Your task to perform on an android device: Open calendar and show me the second week of next month Image 0: 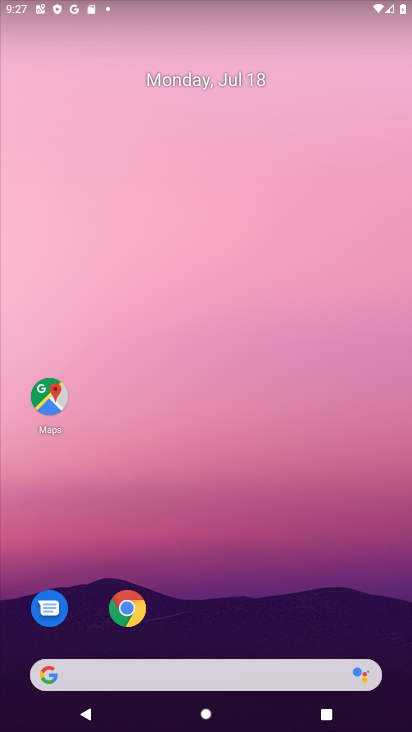
Step 0: drag from (180, 620) to (219, 86)
Your task to perform on an android device: Open calendar and show me the second week of next month Image 1: 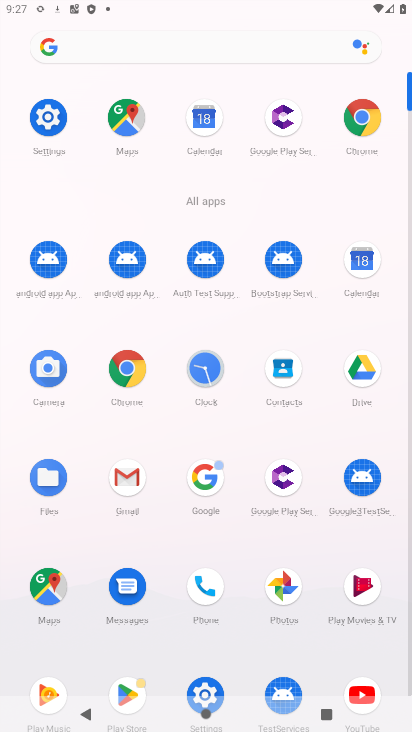
Step 1: click (357, 275)
Your task to perform on an android device: Open calendar and show me the second week of next month Image 2: 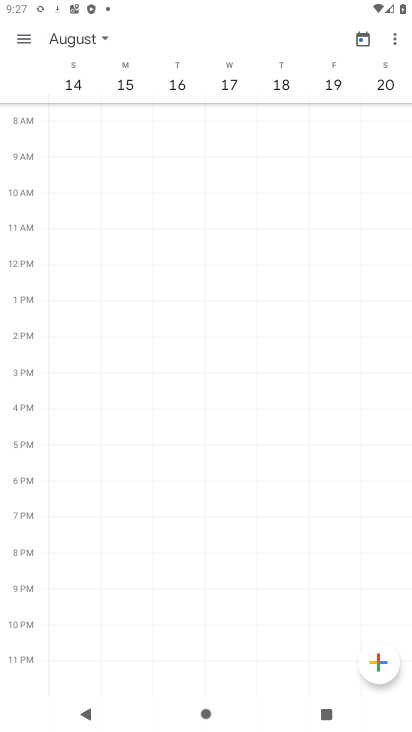
Step 2: click (86, 44)
Your task to perform on an android device: Open calendar and show me the second week of next month Image 3: 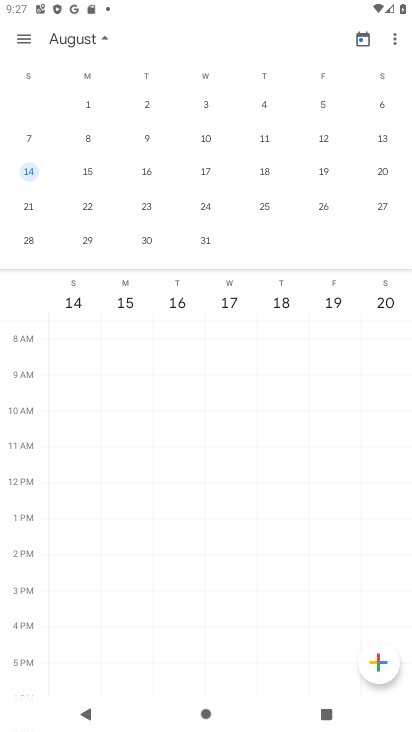
Step 3: click (26, 139)
Your task to perform on an android device: Open calendar and show me the second week of next month Image 4: 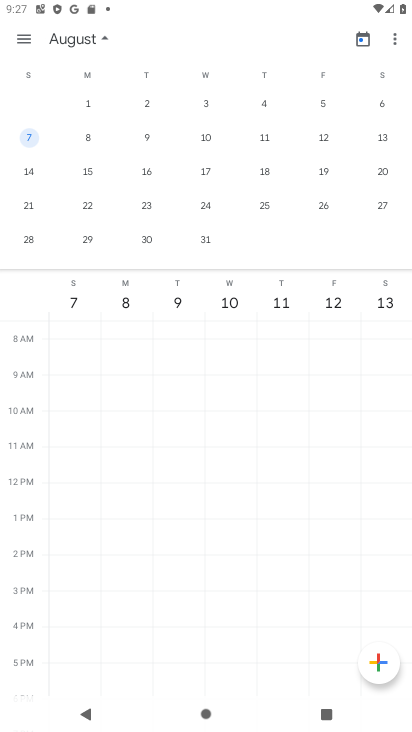
Step 4: click (26, 139)
Your task to perform on an android device: Open calendar and show me the second week of next month Image 5: 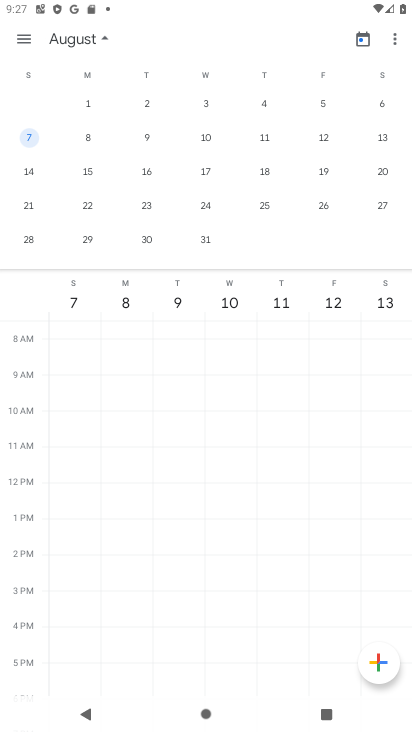
Step 5: task complete